Your task to perform on an android device: Go to privacy settings Image 0: 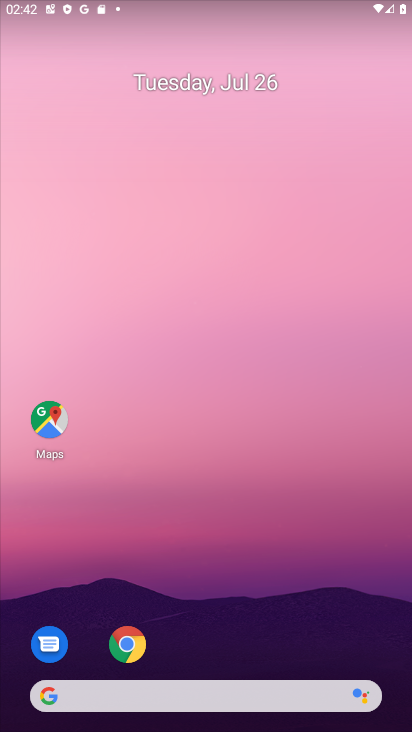
Step 0: drag from (181, 672) to (151, 112)
Your task to perform on an android device: Go to privacy settings Image 1: 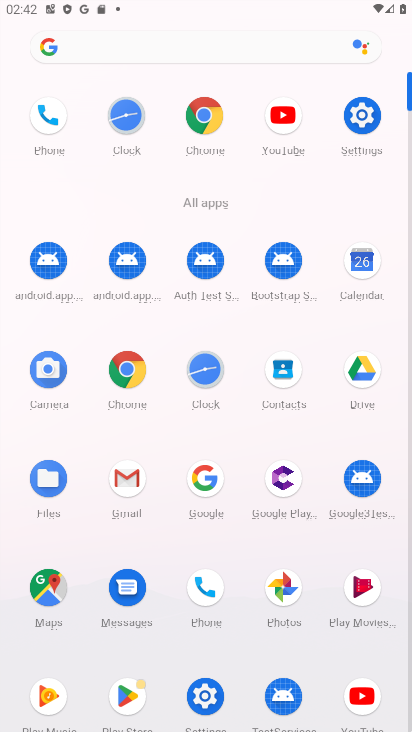
Step 1: click (365, 107)
Your task to perform on an android device: Go to privacy settings Image 2: 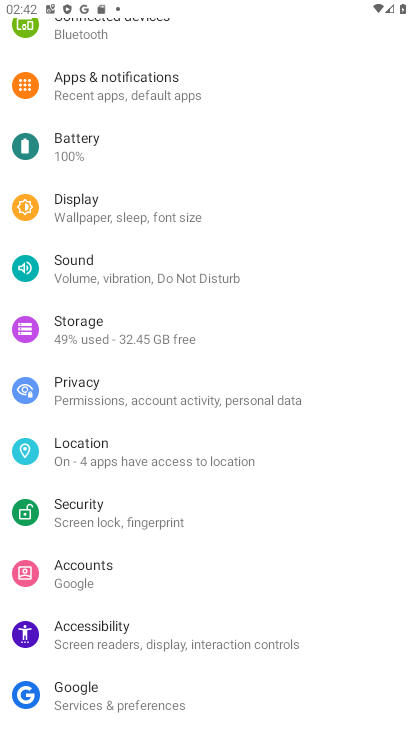
Step 2: click (76, 391)
Your task to perform on an android device: Go to privacy settings Image 3: 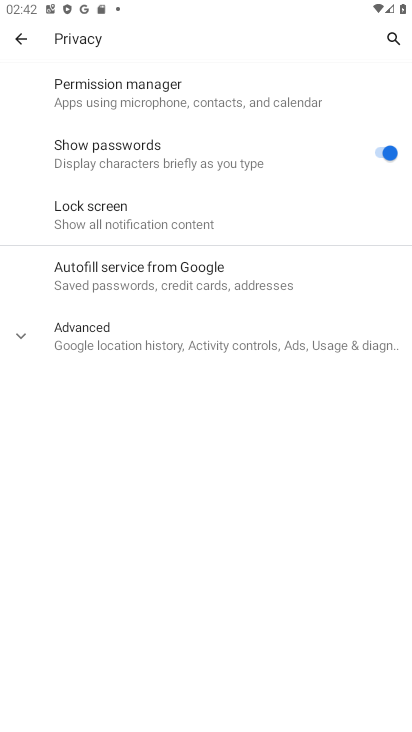
Step 3: click (78, 320)
Your task to perform on an android device: Go to privacy settings Image 4: 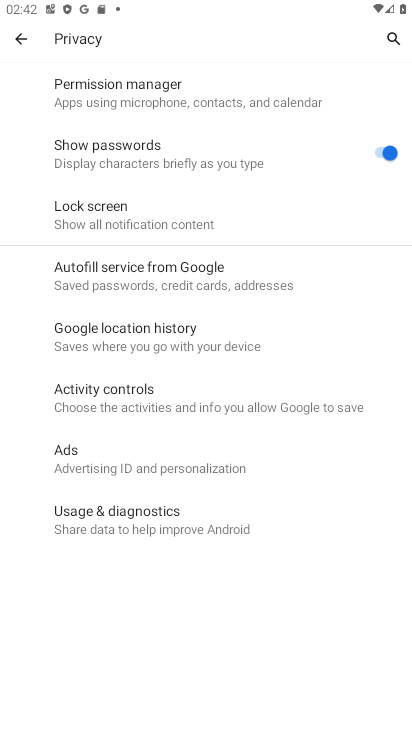
Step 4: task complete